Your task to perform on an android device: See recent photos Image 0: 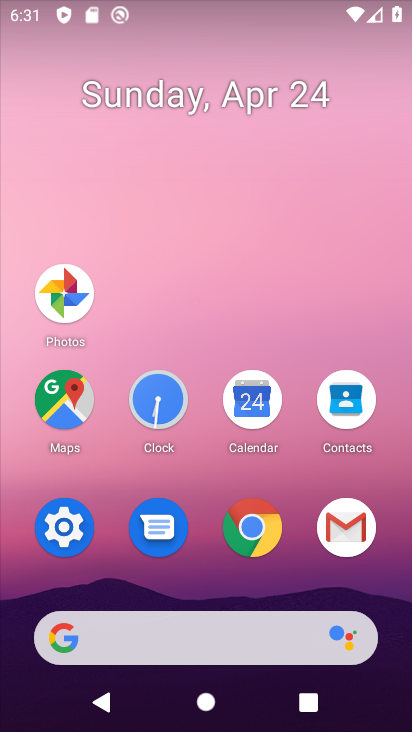
Step 0: click (61, 291)
Your task to perform on an android device: See recent photos Image 1: 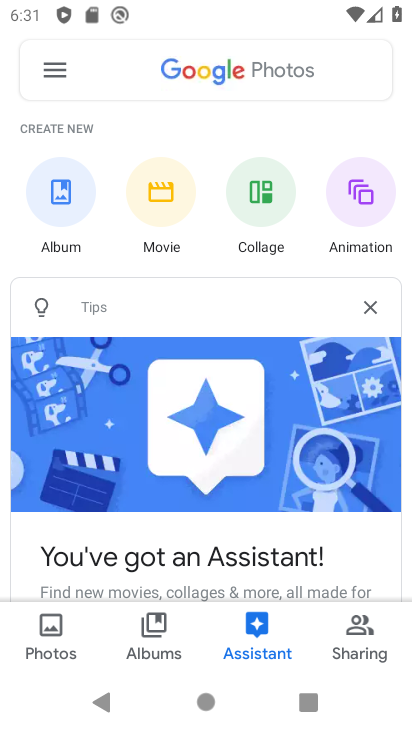
Step 1: click (49, 618)
Your task to perform on an android device: See recent photos Image 2: 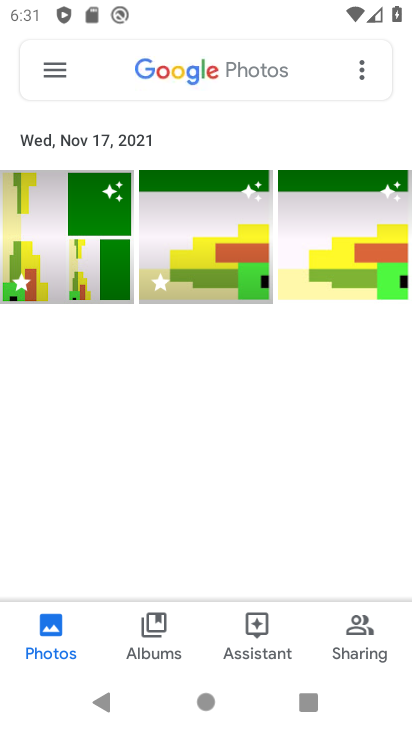
Step 2: task complete